Your task to perform on an android device: turn off javascript in the chrome app Image 0: 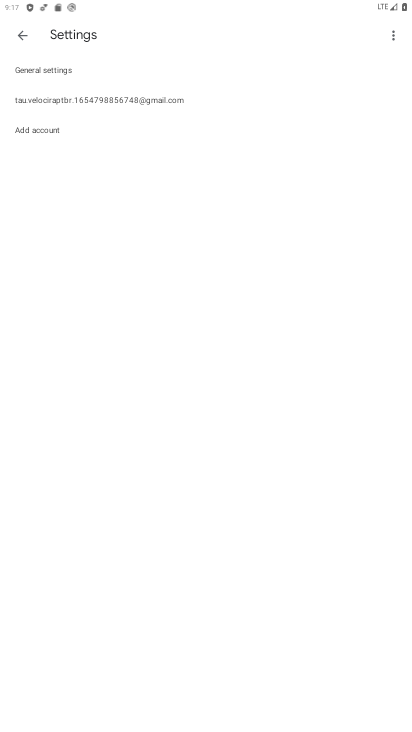
Step 0: press home button
Your task to perform on an android device: turn off javascript in the chrome app Image 1: 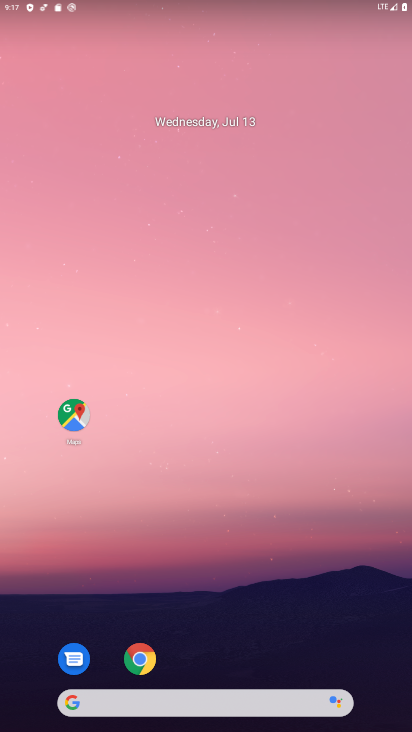
Step 1: click (141, 661)
Your task to perform on an android device: turn off javascript in the chrome app Image 2: 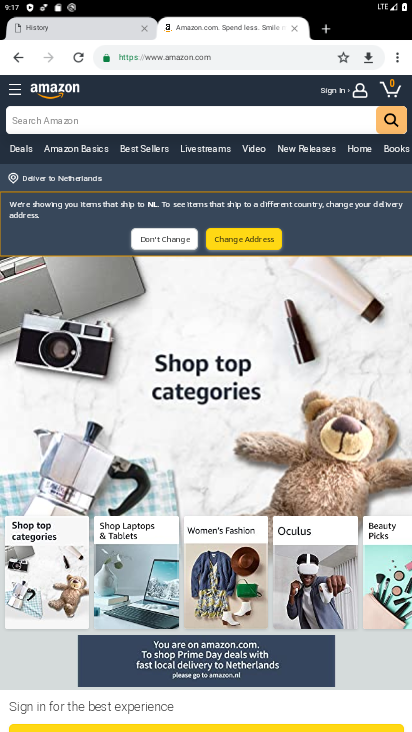
Step 2: click (396, 63)
Your task to perform on an android device: turn off javascript in the chrome app Image 3: 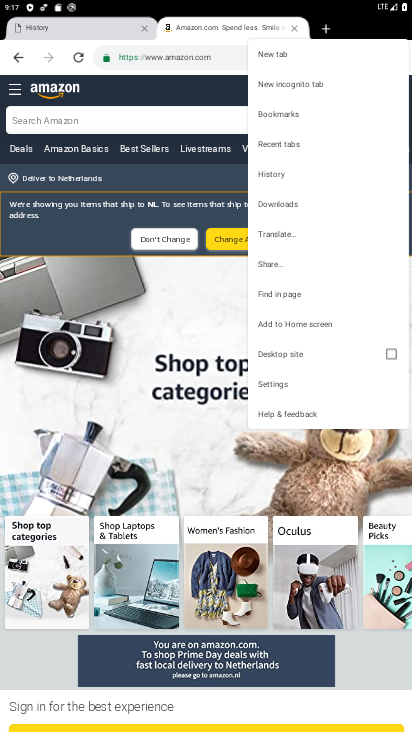
Step 3: click (279, 381)
Your task to perform on an android device: turn off javascript in the chrome app Image 4: 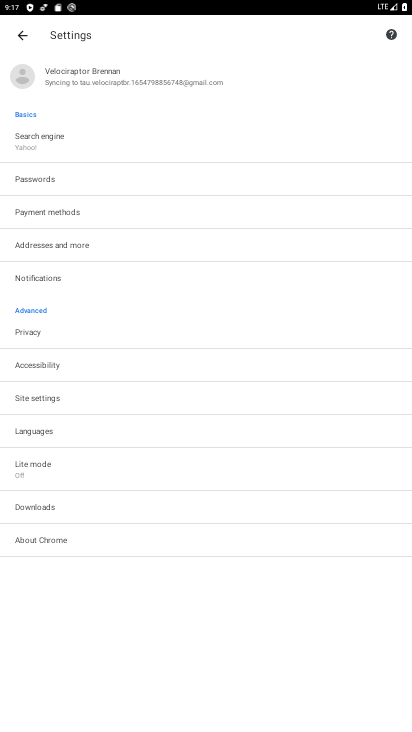
Step 4: click (38, 393)
Your task to perform on an android device: turn off javascript in the chrome app Image 5: 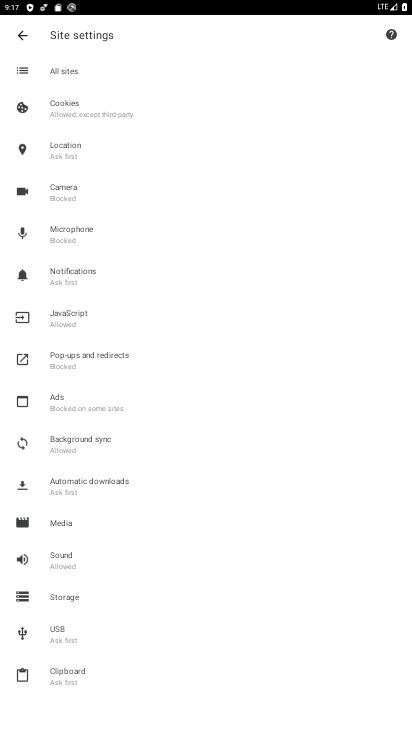
Step 5: click (54, 322)
Your task to perform on an android device: turn off javascript in the chrome app Image 6: 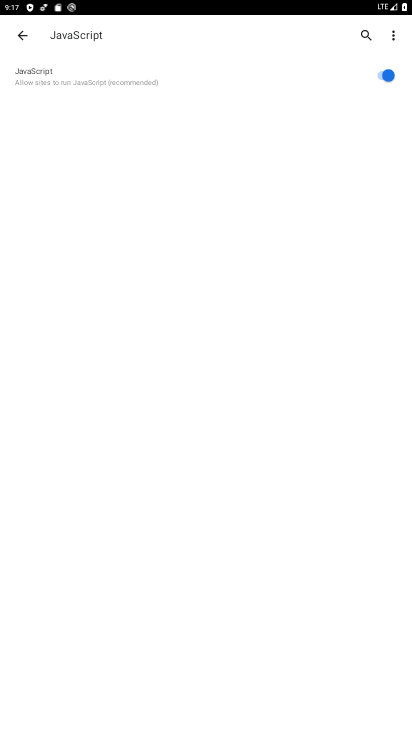
Step 6: click (383, 73)
Your task to perform on an android device: turn off javascript in the chrome app Image 7: 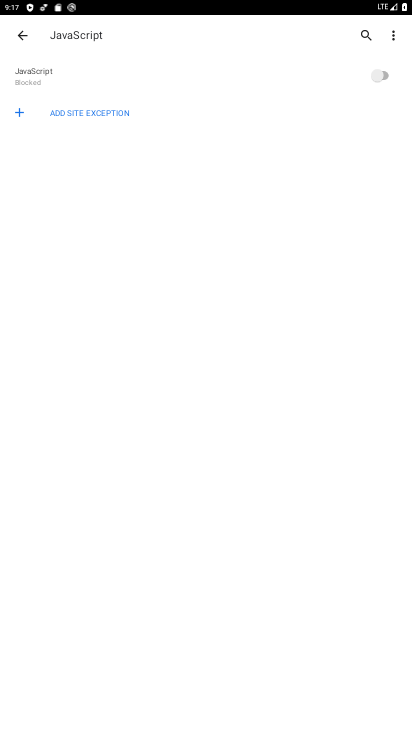
Step 7: task complete